Your task to perform on an android device: How do I get to the nearest T-Mobile Store? Image 0: 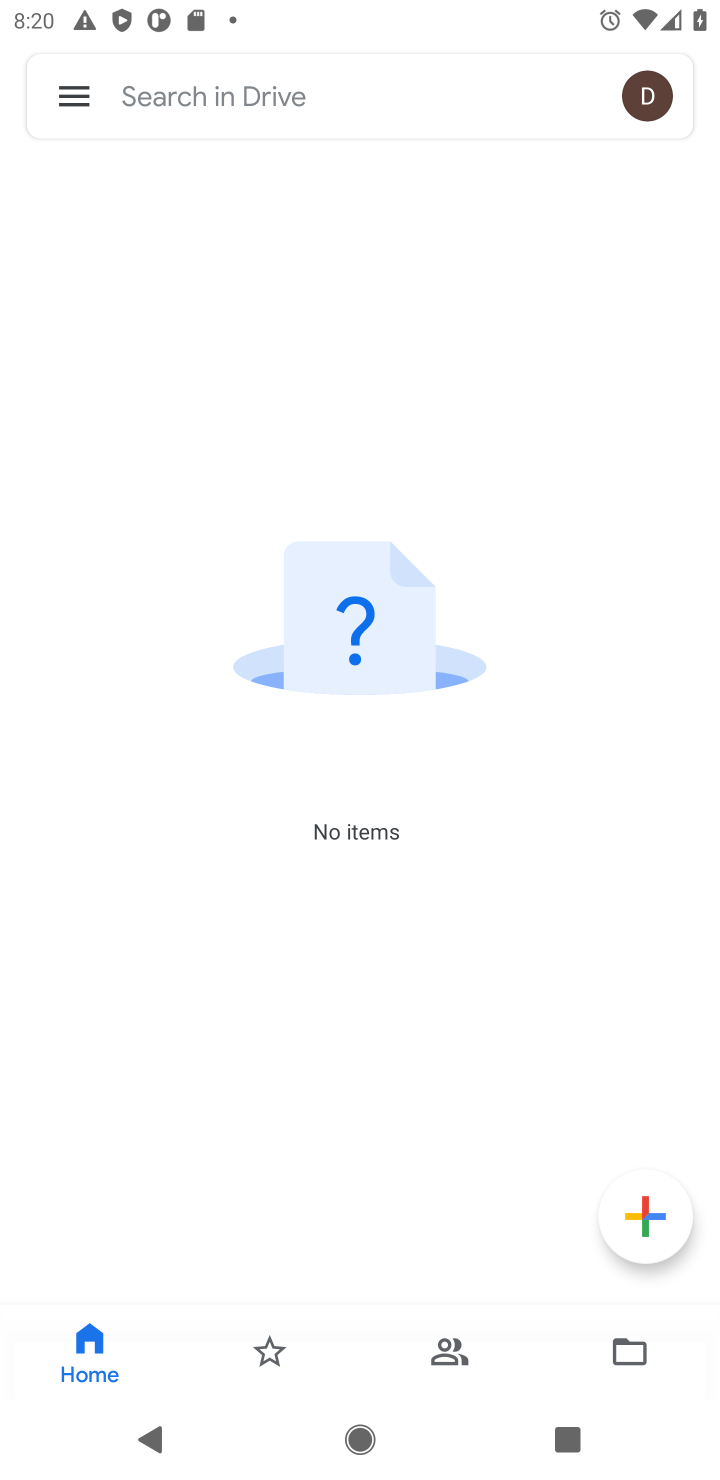
Step 0: press home button
Your task to perform on an android device: How do I get to the nearest T-Mobile Store? Image 1: 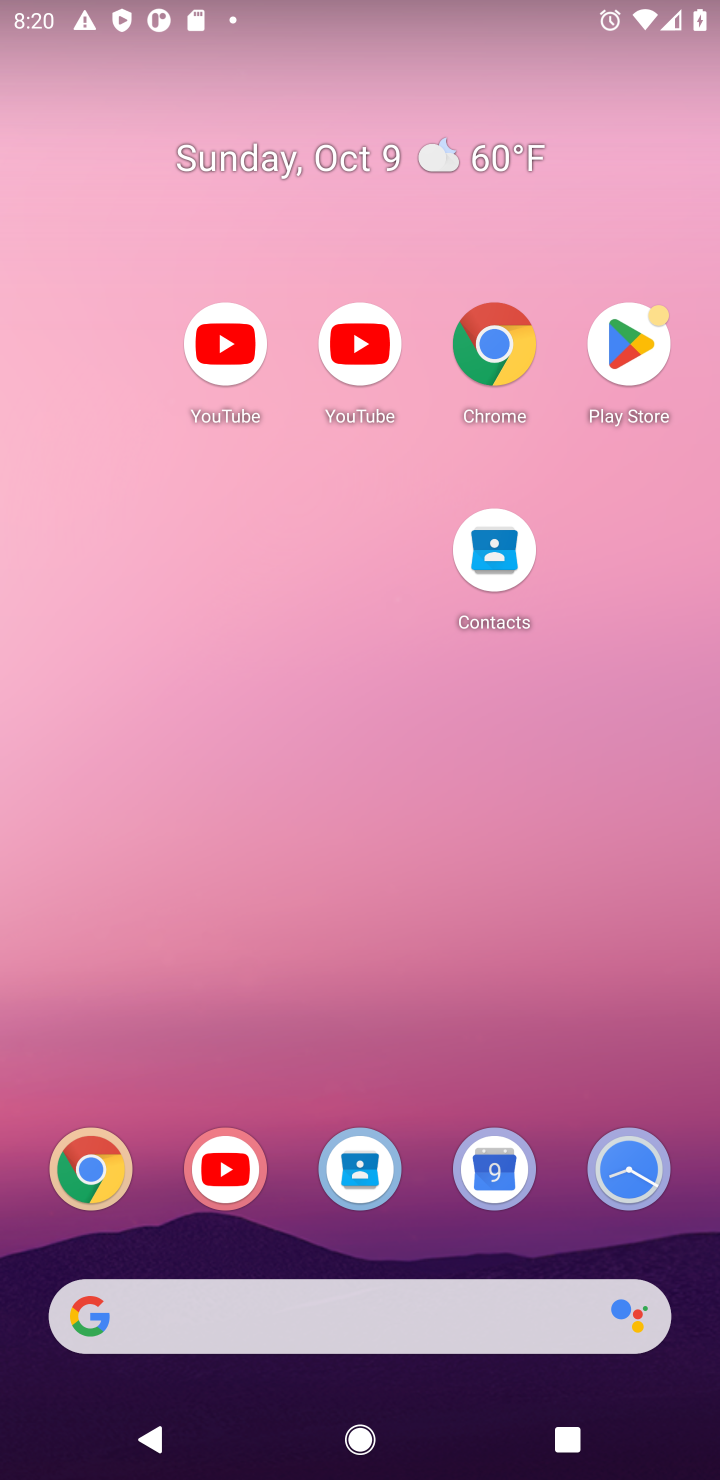
Step 1: drag from (288, 1255) to (370, 80)
Your task to perform on an android device: How do I get to the nearest T-Mobile Store? Image 2: 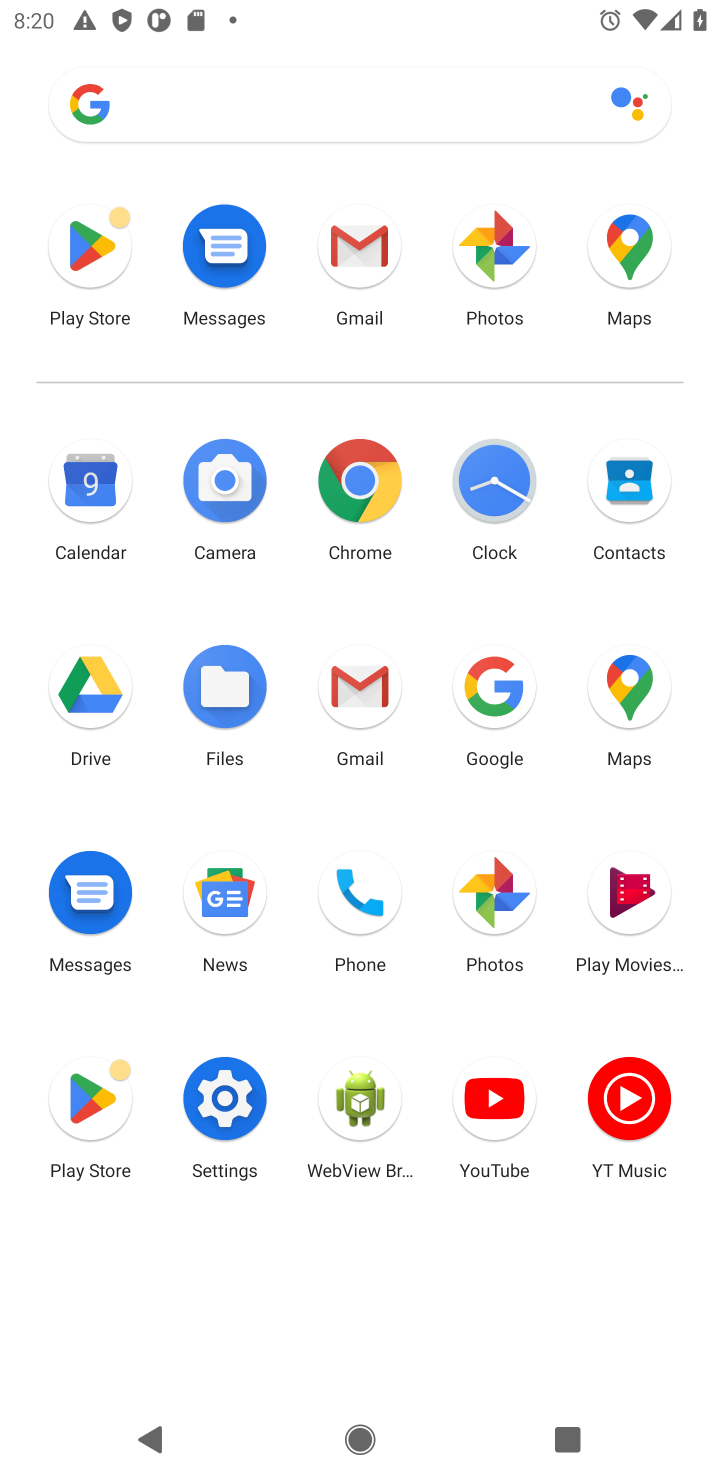
Step 2: click (366, 482)
Your task to perform on an android device: How do I get to the nearest T-Mobile Store? Image 3: 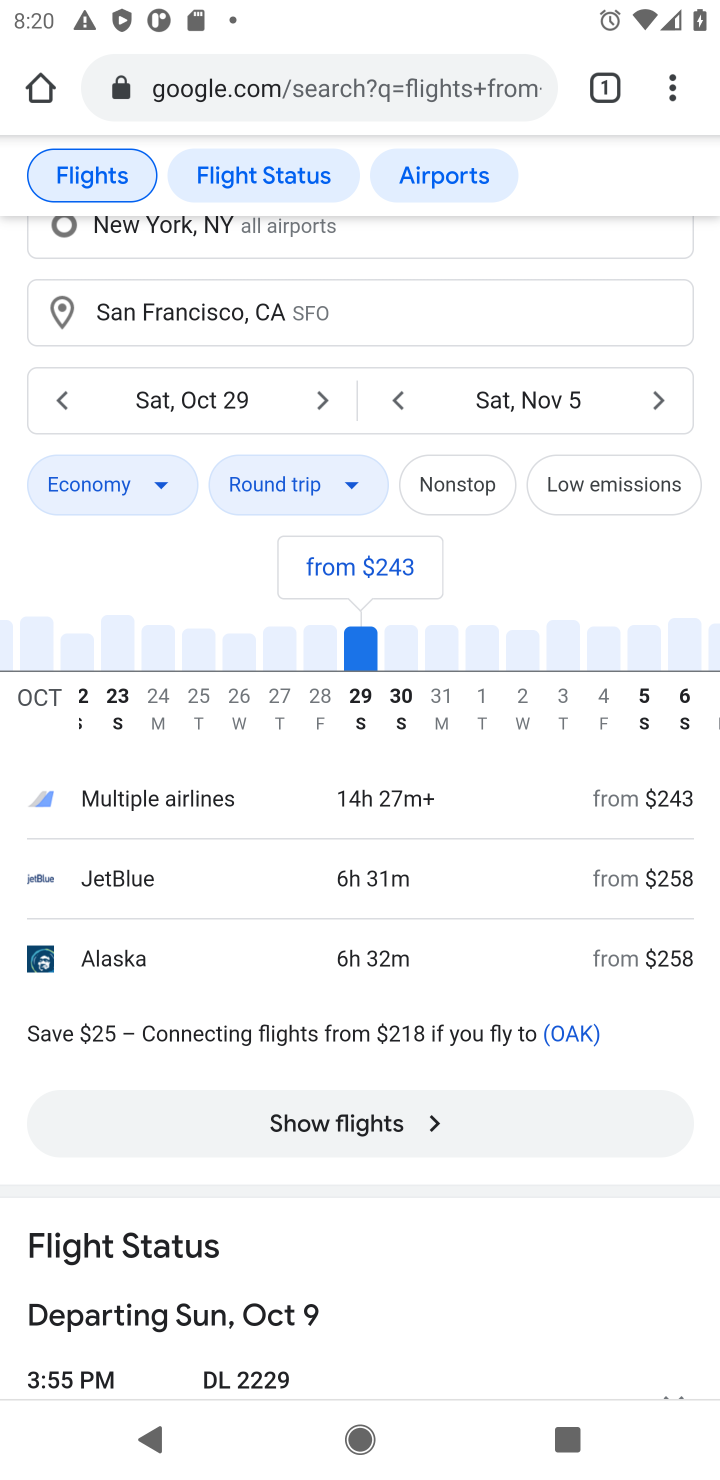
Step 3: click (424, 108)
Your task to perform on an android device: How do I get to the nearest T-Mobile Store? Image 4: 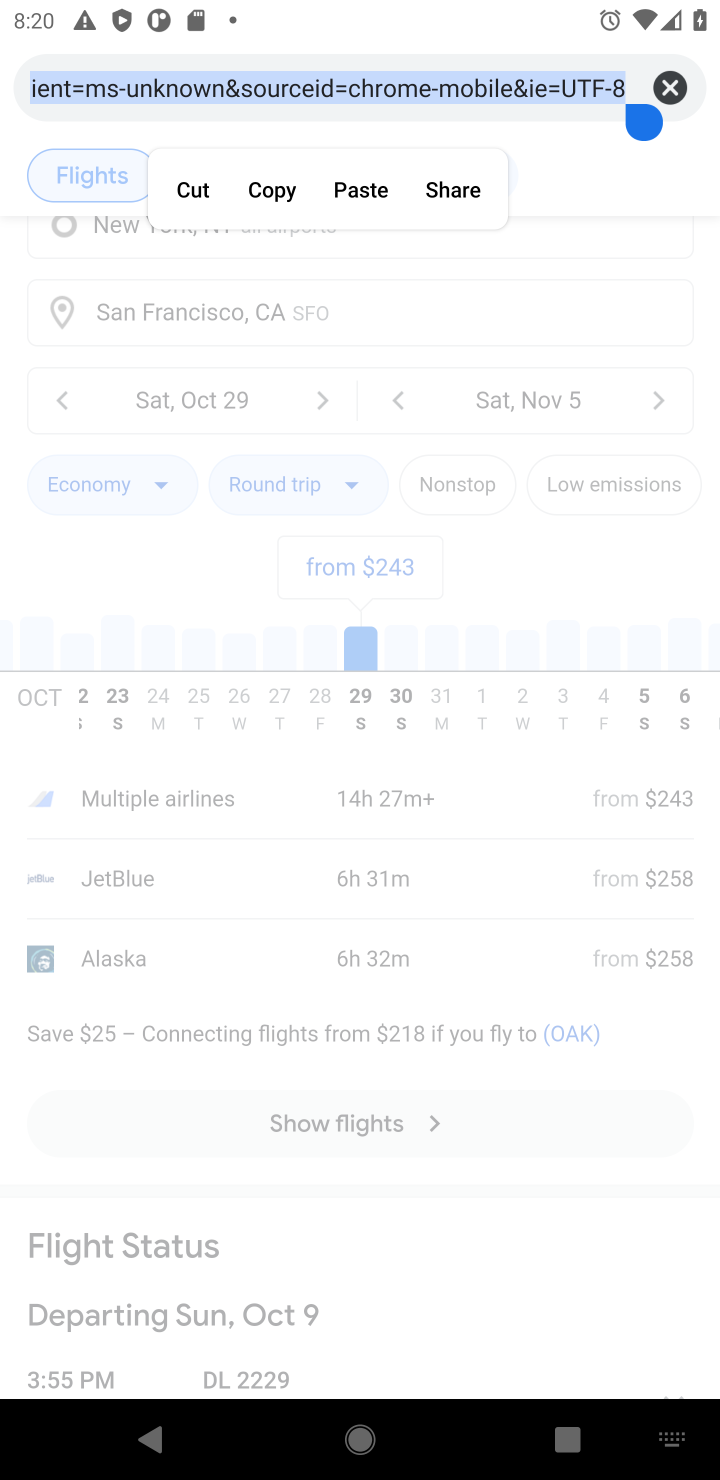
Step 4: type "nearest T-Mobile Store?"
Your task to perform on an android device: How do I get to the nearest T-Mobile Store? Image 5: 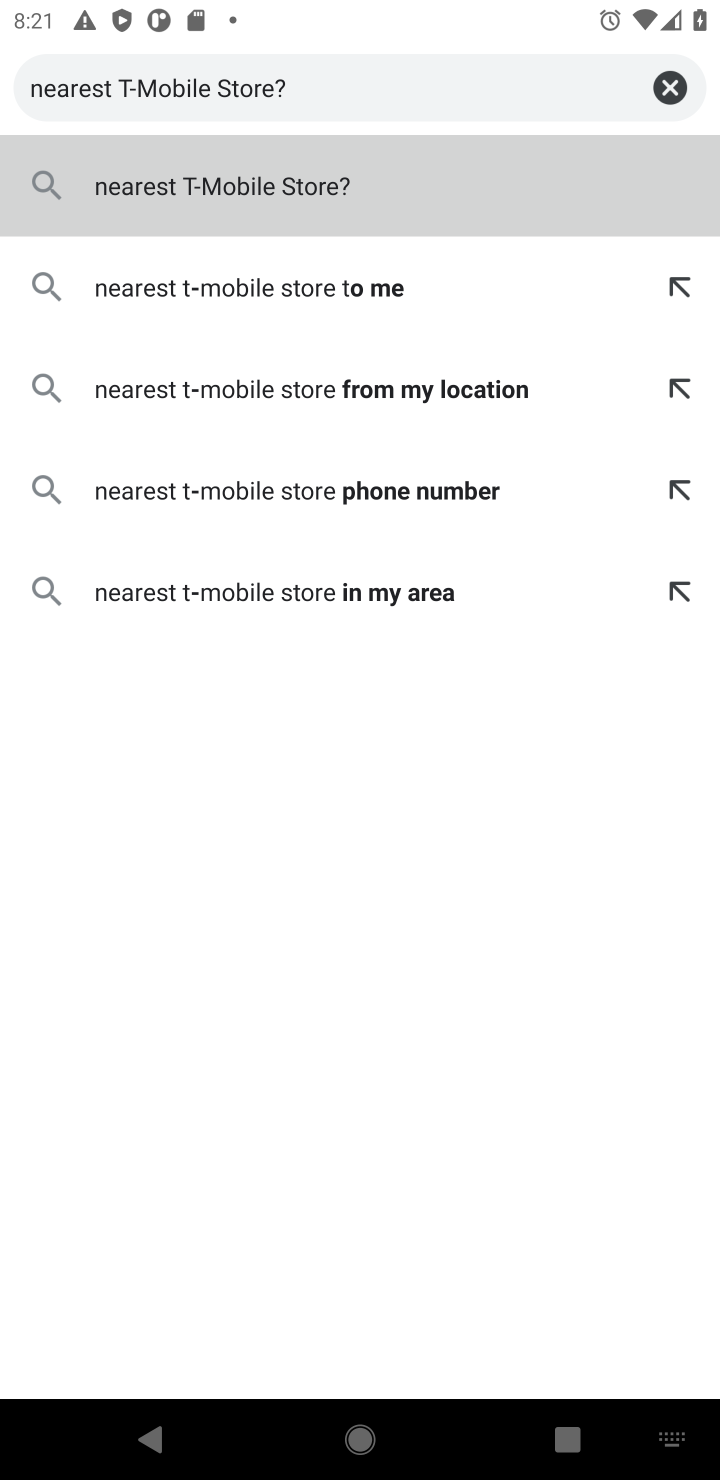
Step 5: press enter
Your task to perform on an android device: How do I get to the nearest T-Mobile Store? Image 6: 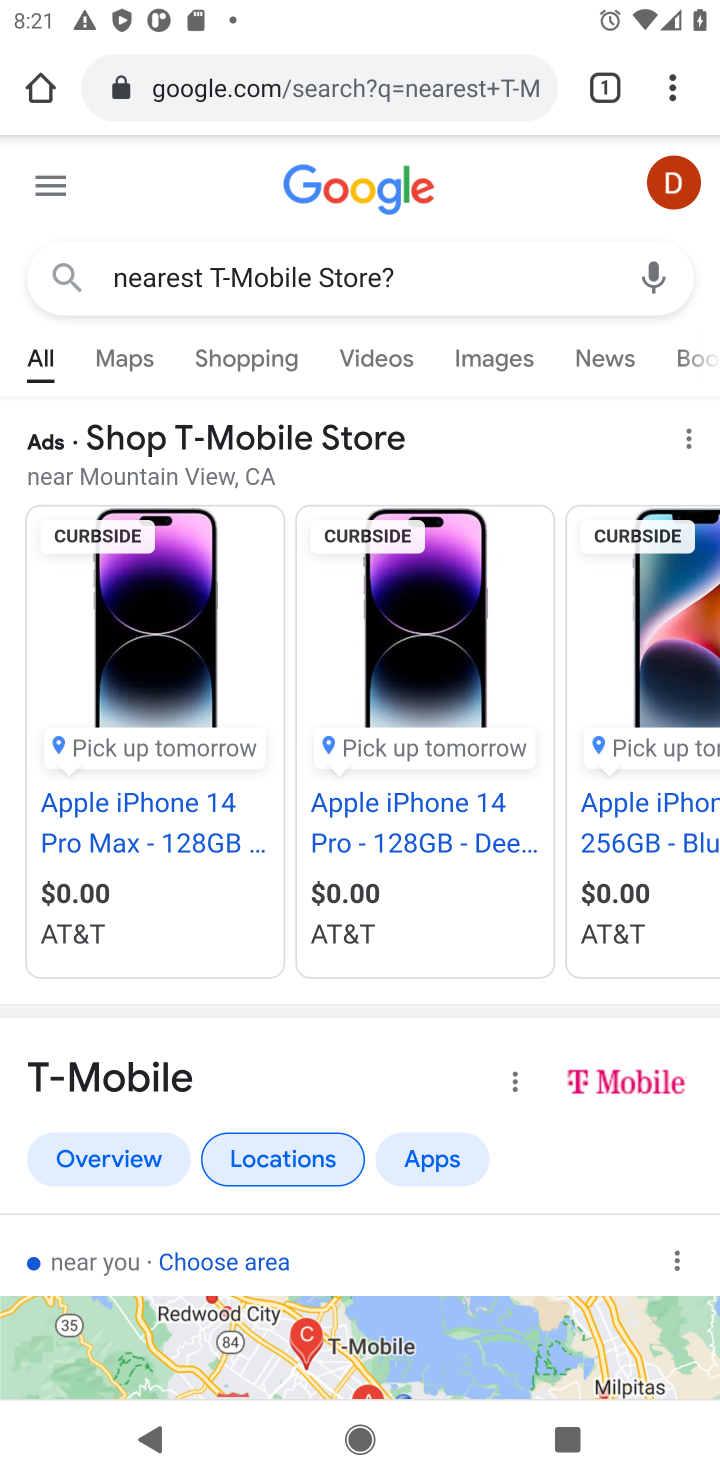
Step 6: task complete